Your task to perform on an android device: Show me popular games on the Play Store Image 0: 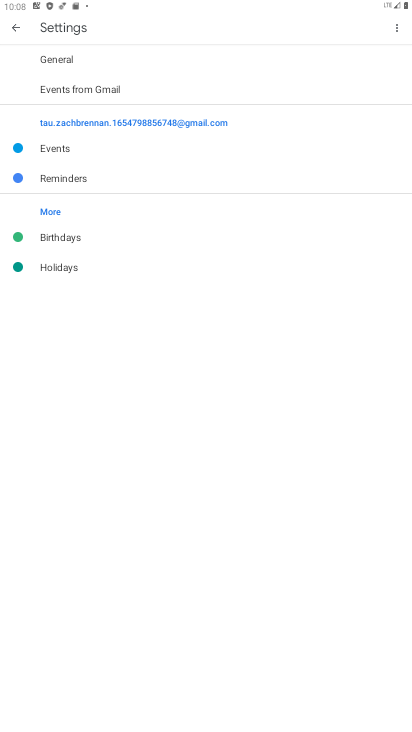
Step 0: press home button
Your task to perform on an android device: Show me popular games on the Play Store Image 1: 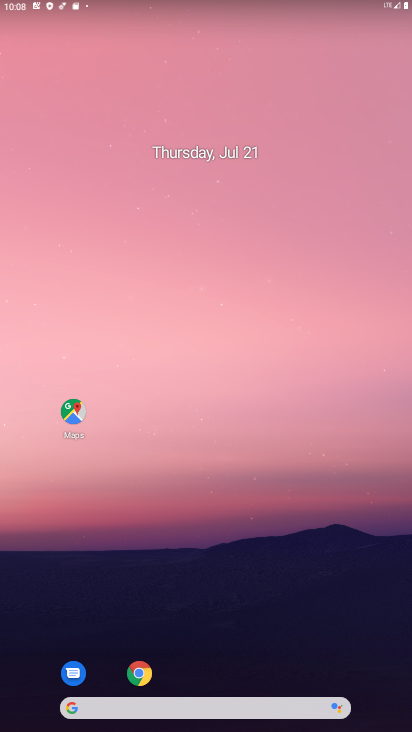
Step 1: drag from (194, 648) to (212, 140)
Your task to perform on an android device: Show me popular games on the Play Store Image 2: 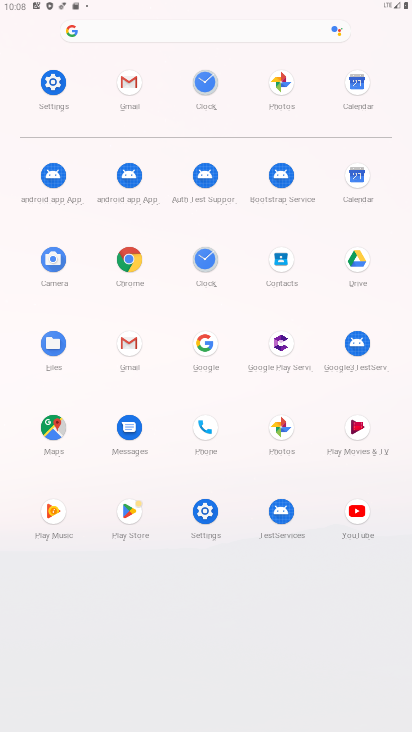
Step 2: click (125, 508)
Your task to perform on an android device: Show me popular games on the Play Store Image 3: 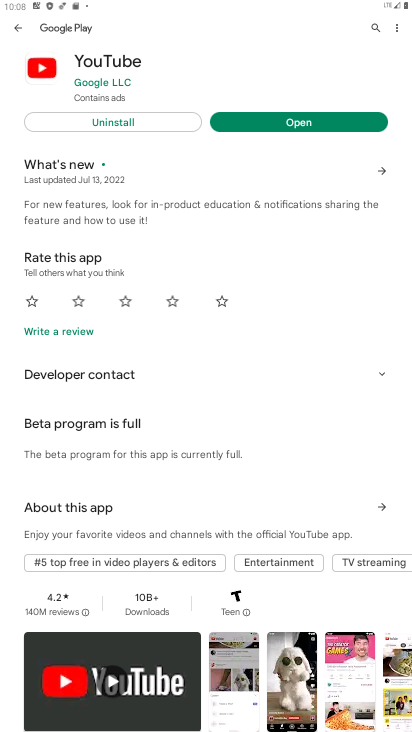
Step 3: click (19, 18)
Your task to perform on an android device: Show me popular games on the Play Store Image 4: 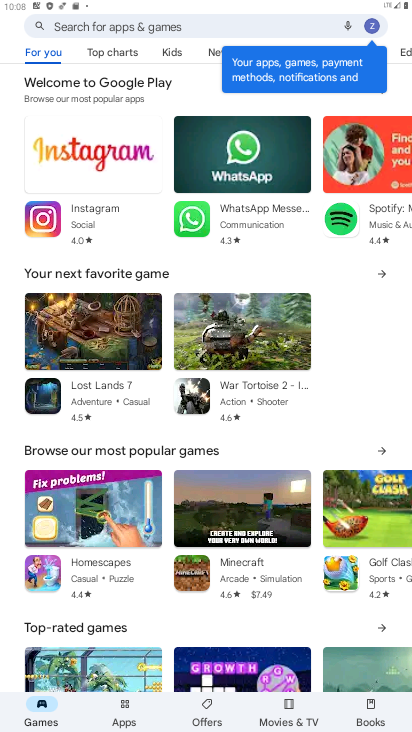
Step 4: click (101, 59)
Your task to perform on an android device: Show me popular games on the Play Store Image 5: 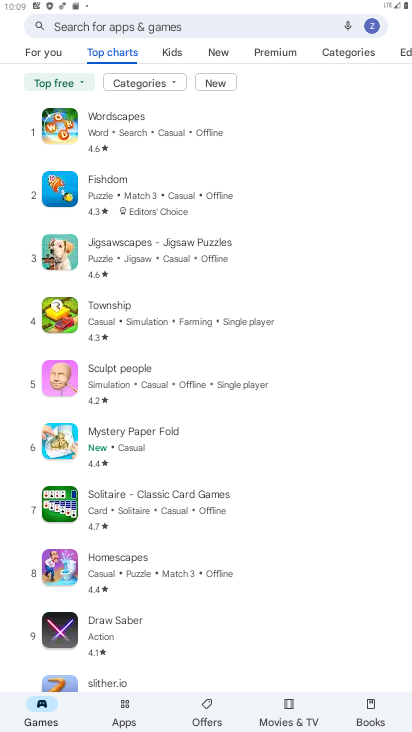
Step 5: task complete